Your task to perform on an android device: turn on wifi Image 0: 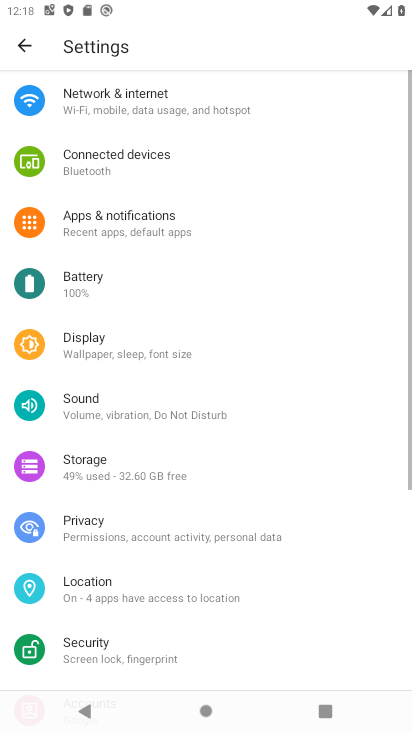
Step 0: click (158, 105)
Your task to perform on an android device: turn on wifi Image 1: 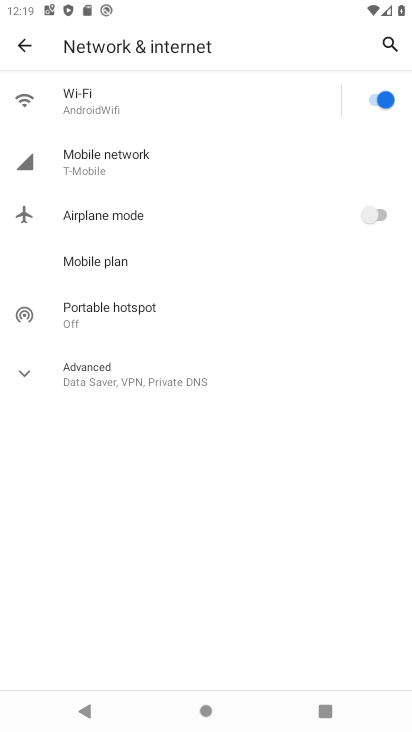
Step 1: task complete